Your task to perform on an android device: uninstall "Facebook Messenger" Image 0: 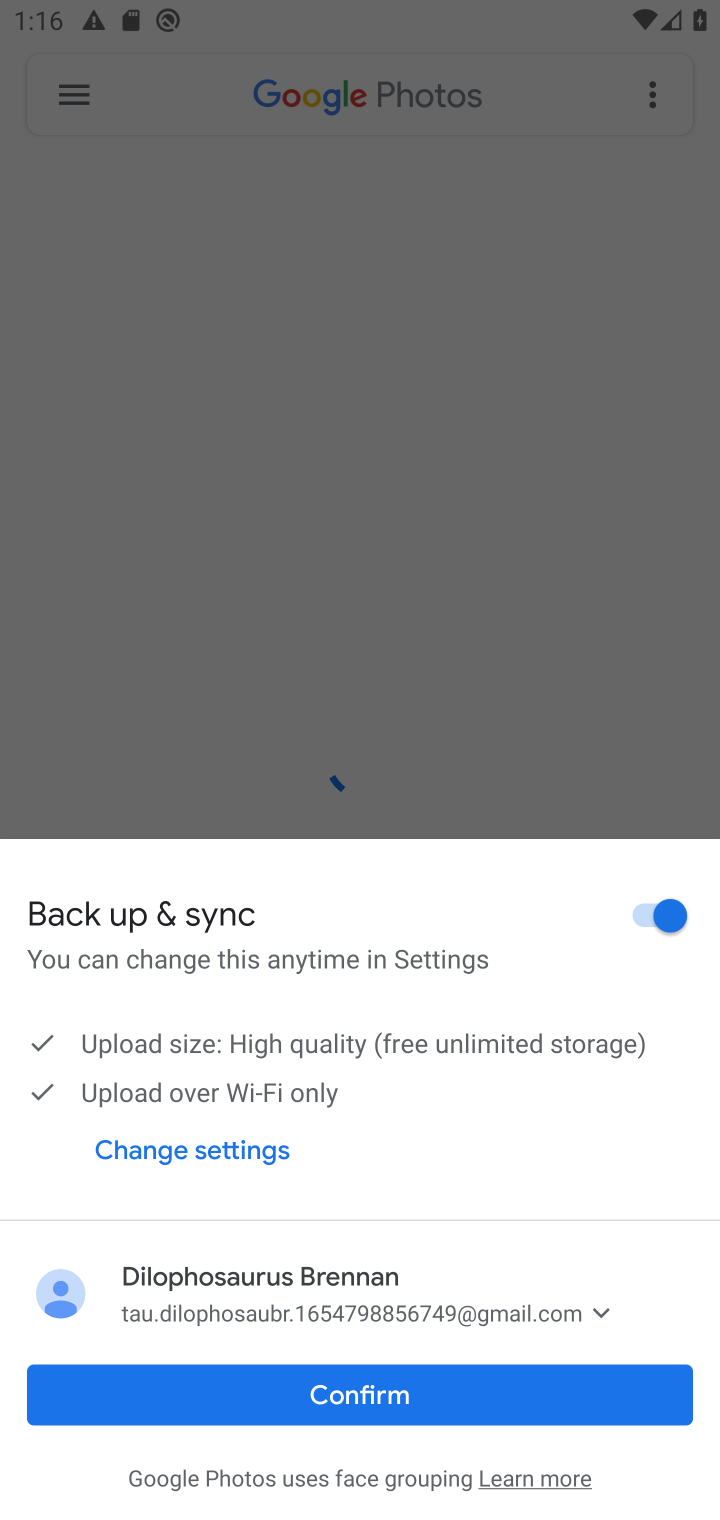
Step 0: press home button
Your task to perform on an android device: uninstall "Facebook Messenger" Image 1: 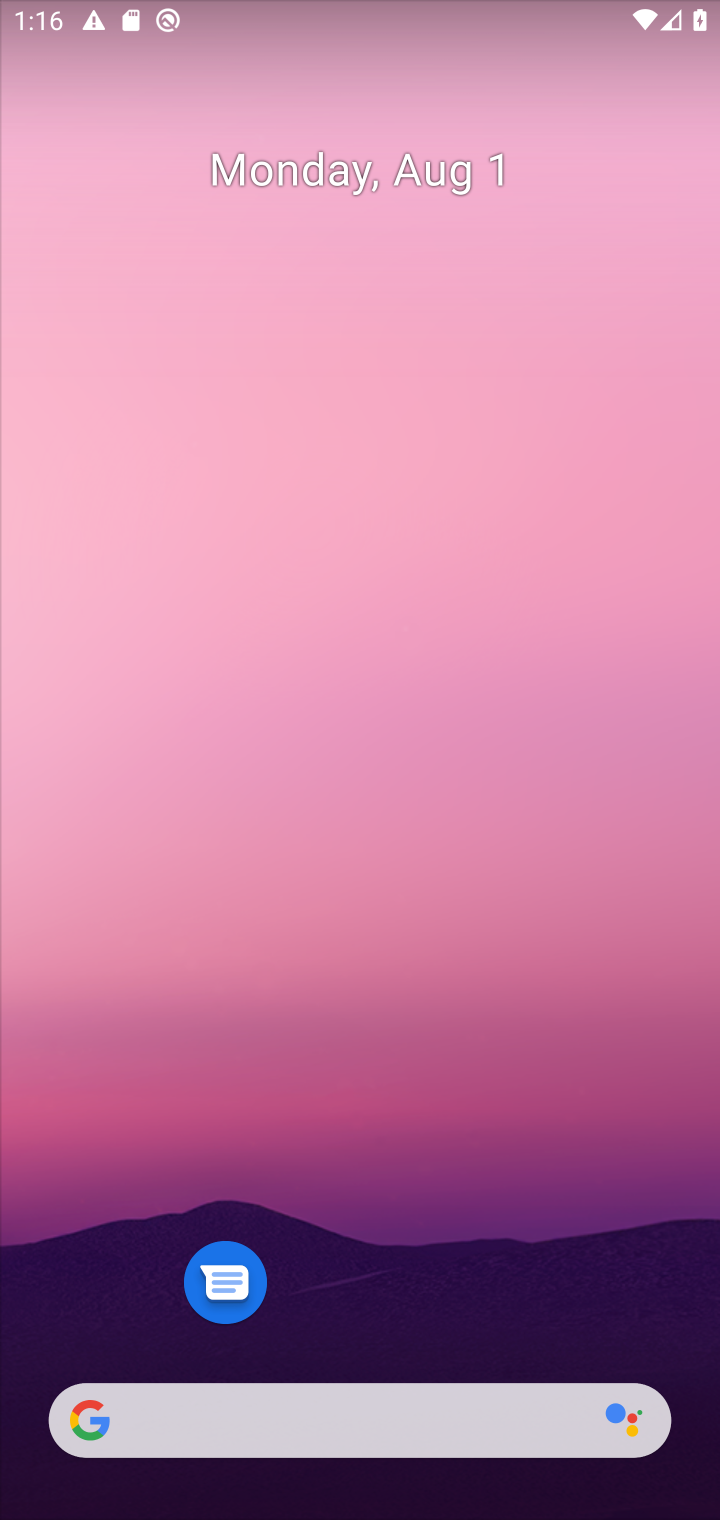
Step 1: drag from (337, 1353) to (220, 323)
Your task to perform on an android device: uninstall "Facebook Messenger" Image 2: 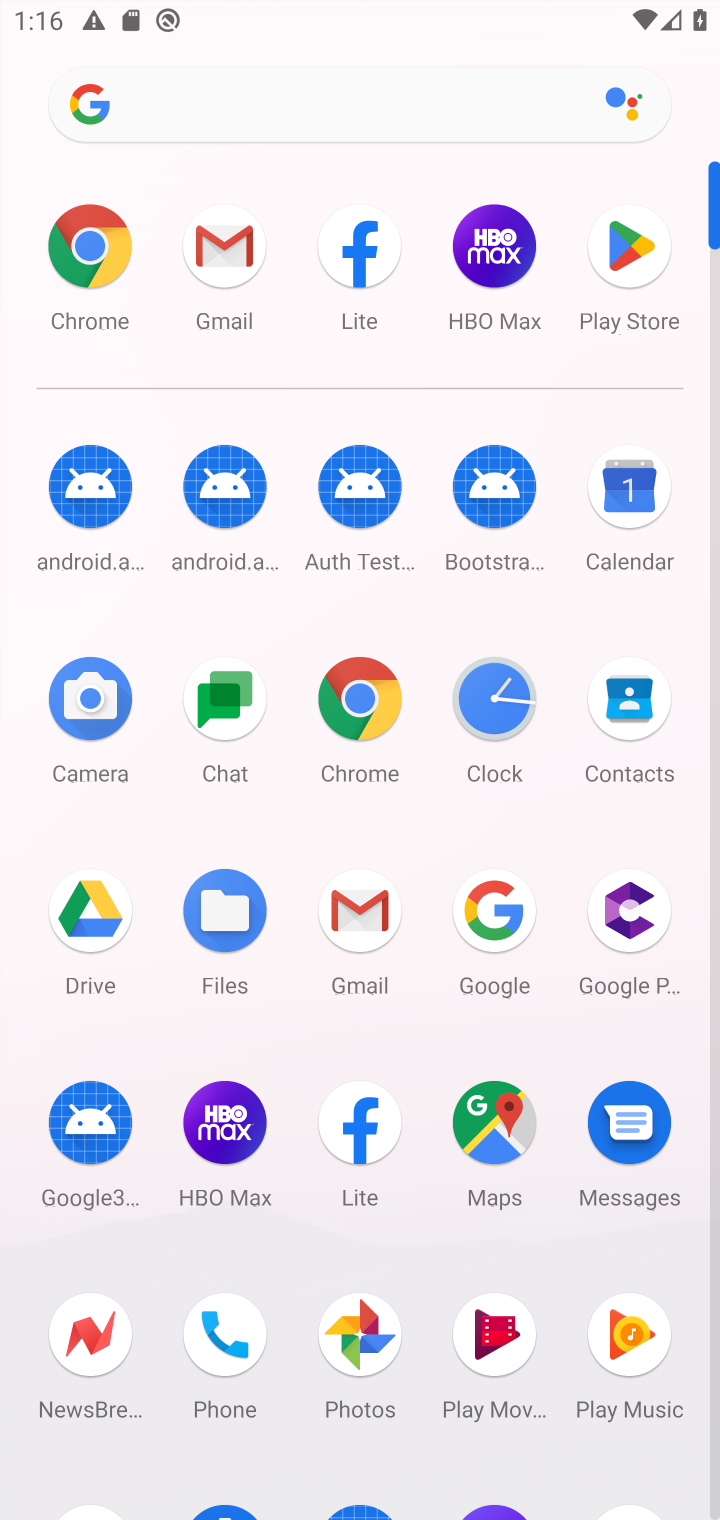
Step 2: click (662, 275)
Your task to perform on an android device: uninstall "Facebook Messenger" Image 3: 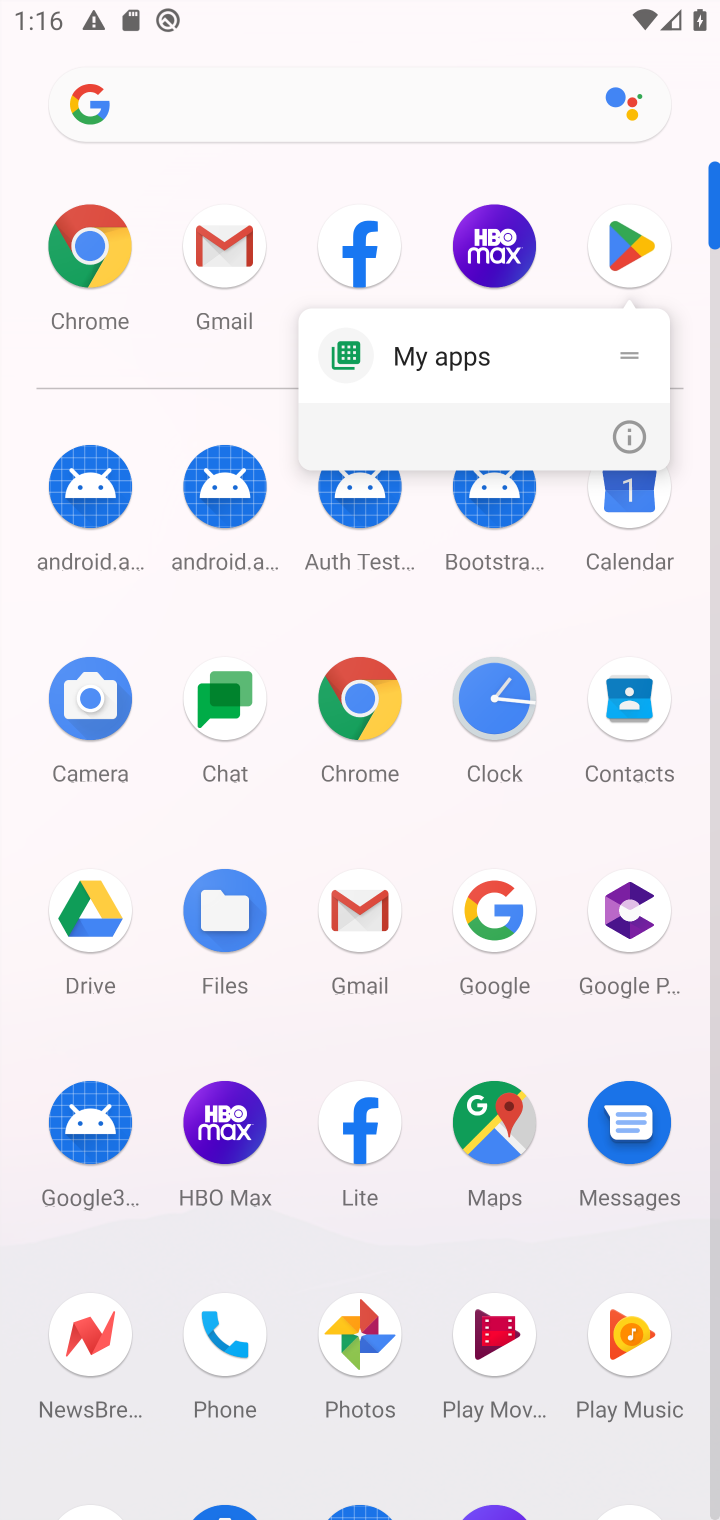
Step 3: click (647, 257)
Your task to perform on an android device: uninstall "Facebook Messenger" Image 4: 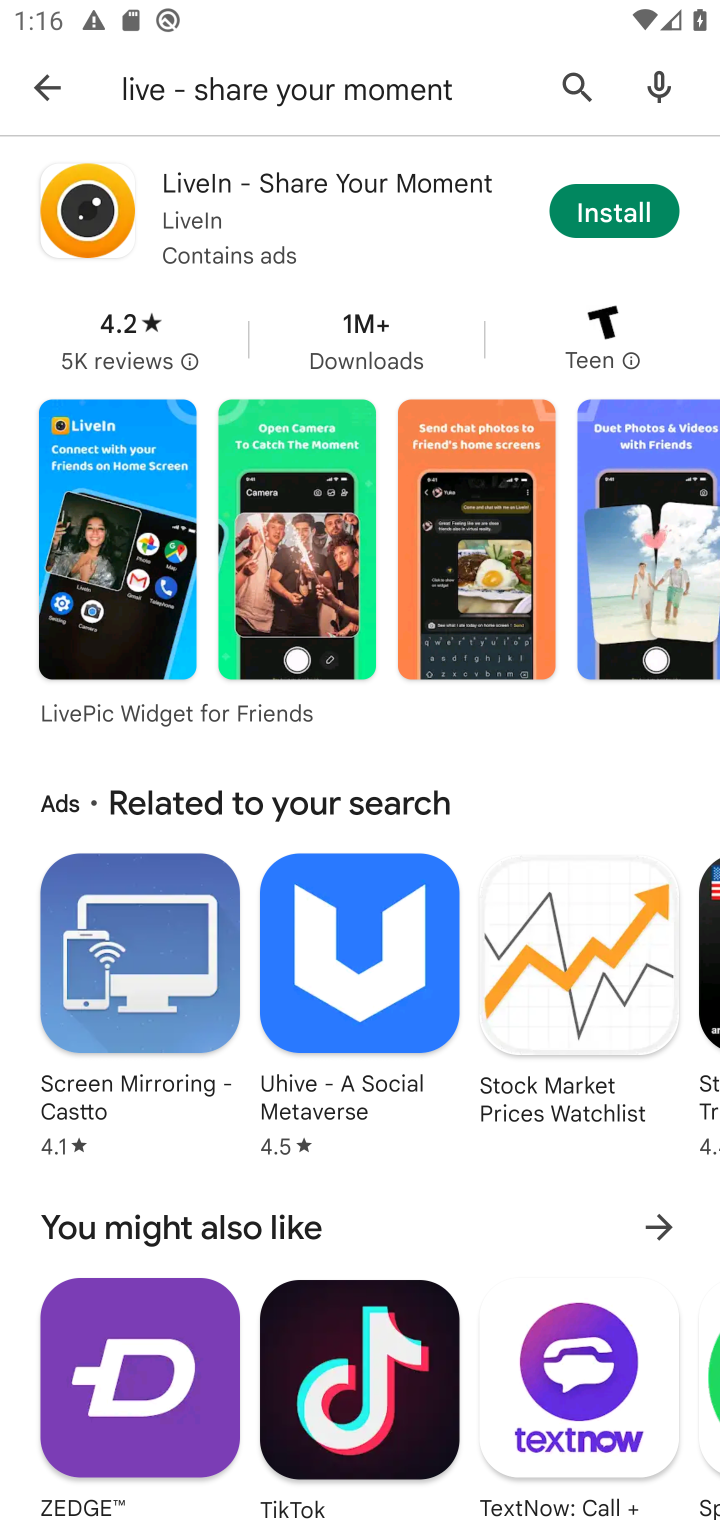
Step 4: click (47, 71)
Your task to perform on an android device: uninstall "Facebook Messenger" Image 5: 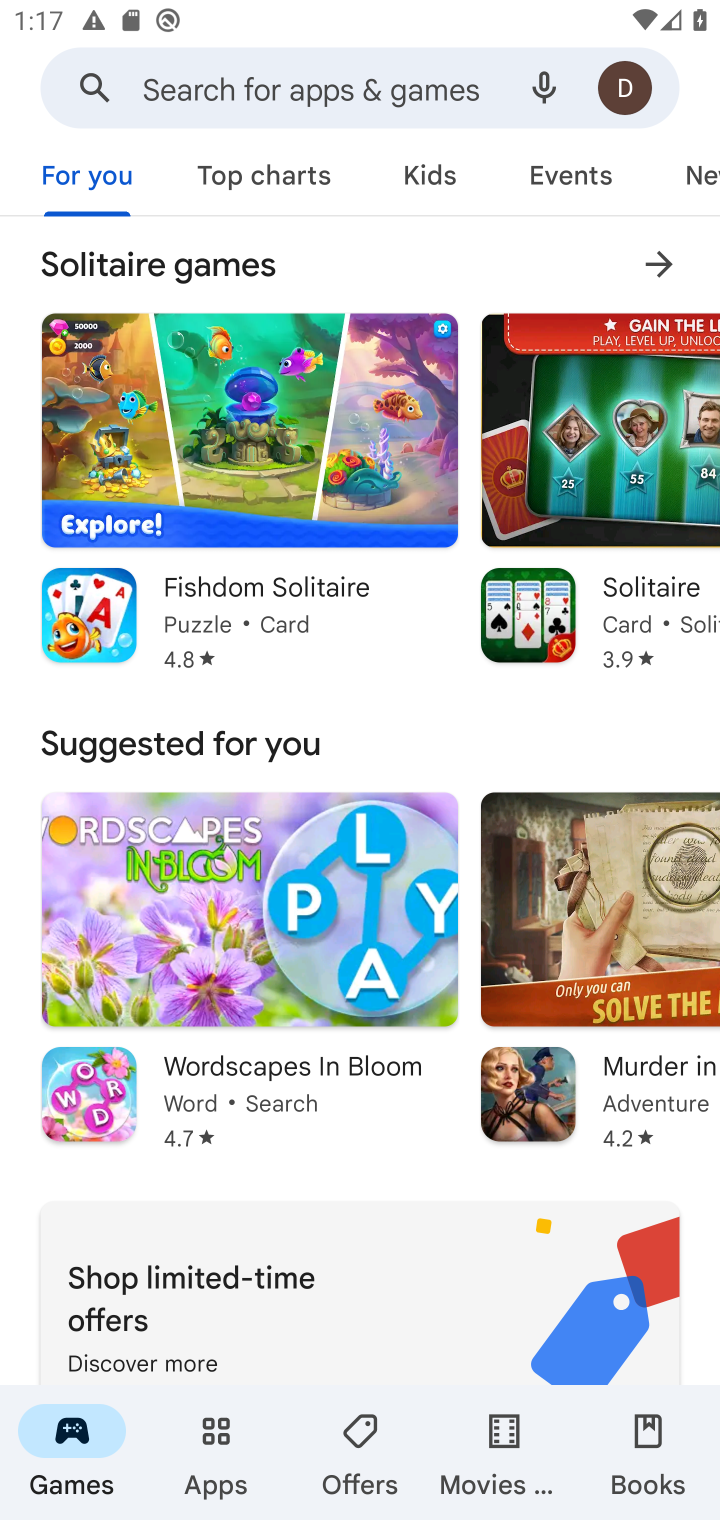
Step 5: click (184, 96)
Your task to perform on an android device: uninstall "Facebook Messenger" Image 6: 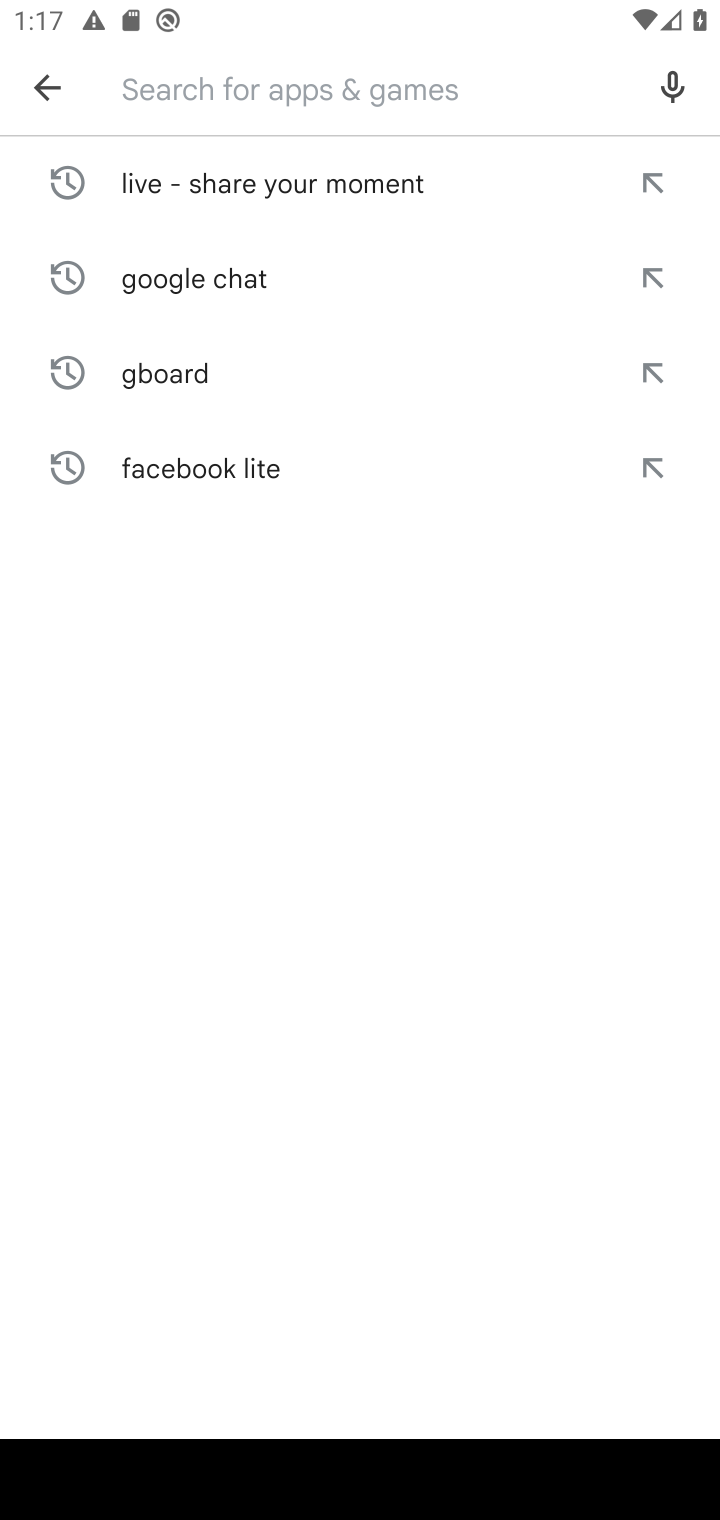
Step 6: type "Facebook Messenger"
Your task to perform on an android device: uninstall "Facebook Messenger" Image 7: 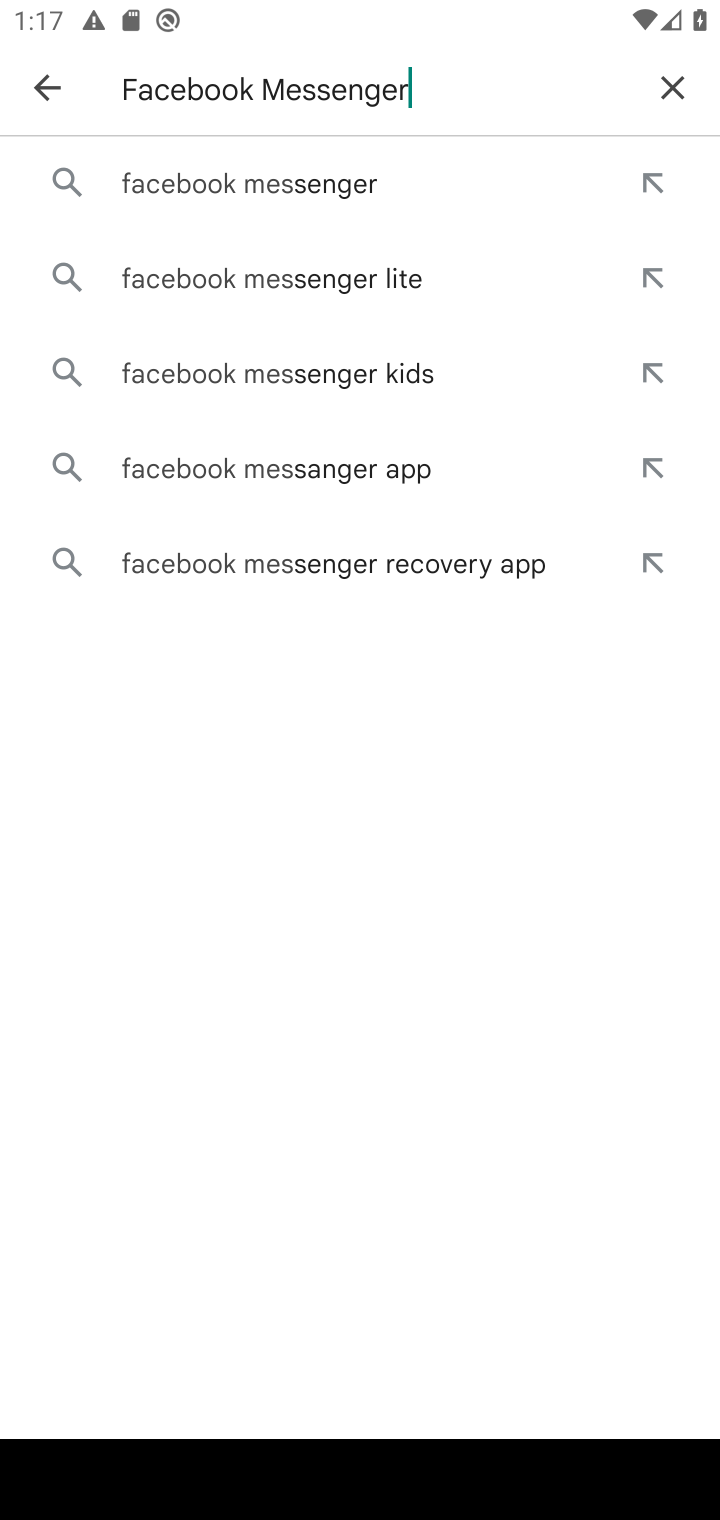
Step 7: type ""
Your task to perform on an android device: uninstall "Facebook Messenger" Image 8: 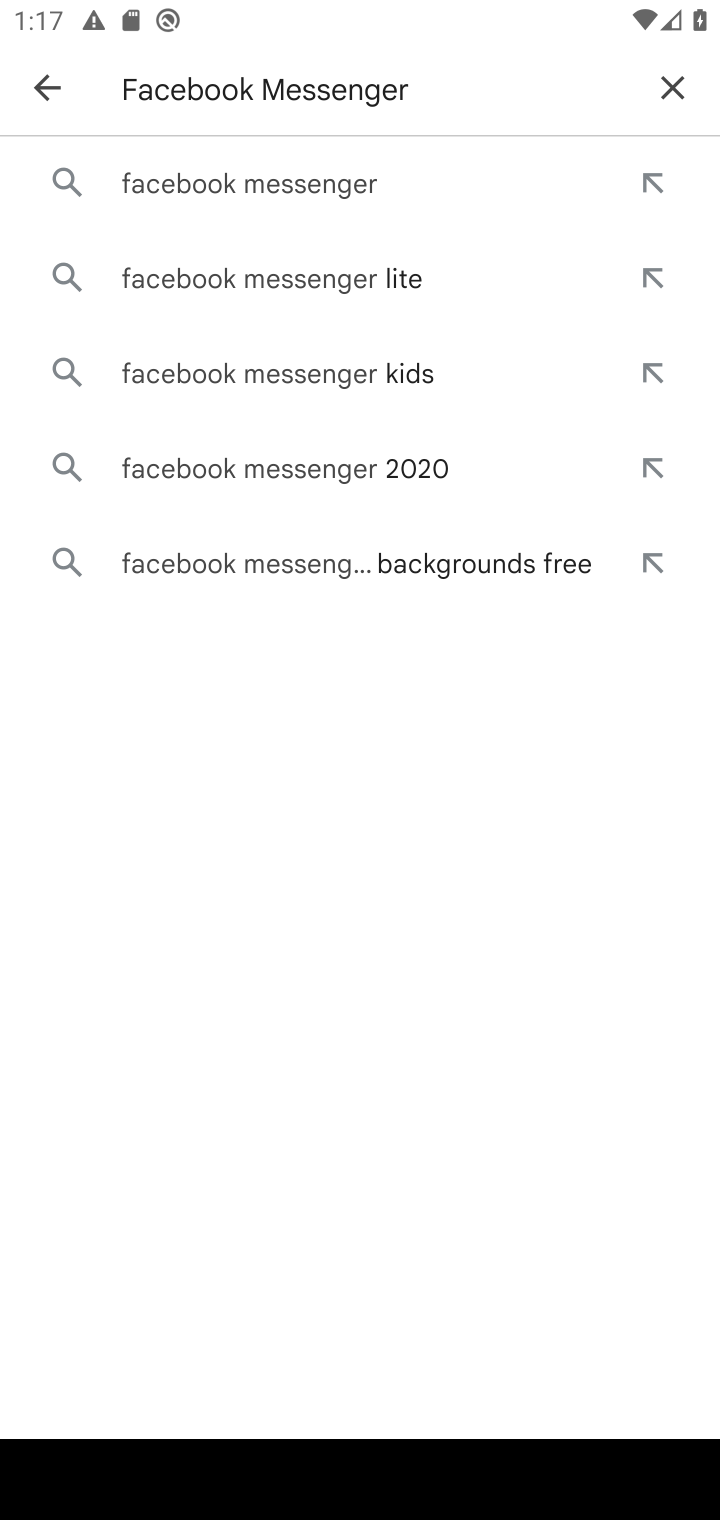
Step 8: click (323, 183)
Your task to perform on an android device: uninstall "Facebook Messenger" Image 9: 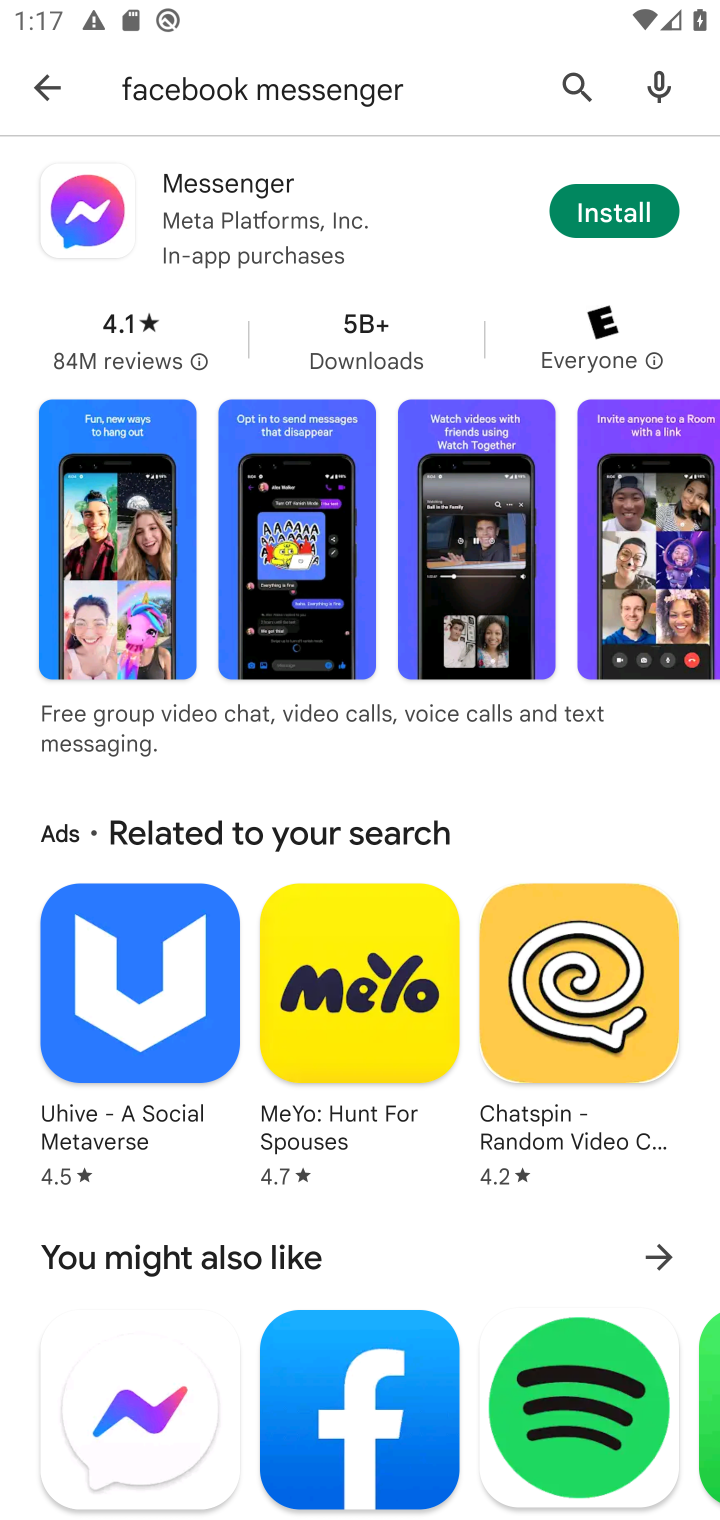
Step 9: task complete